Your task to perform on an android device: Open Youtube and go to the subscriptions tab Image 0: 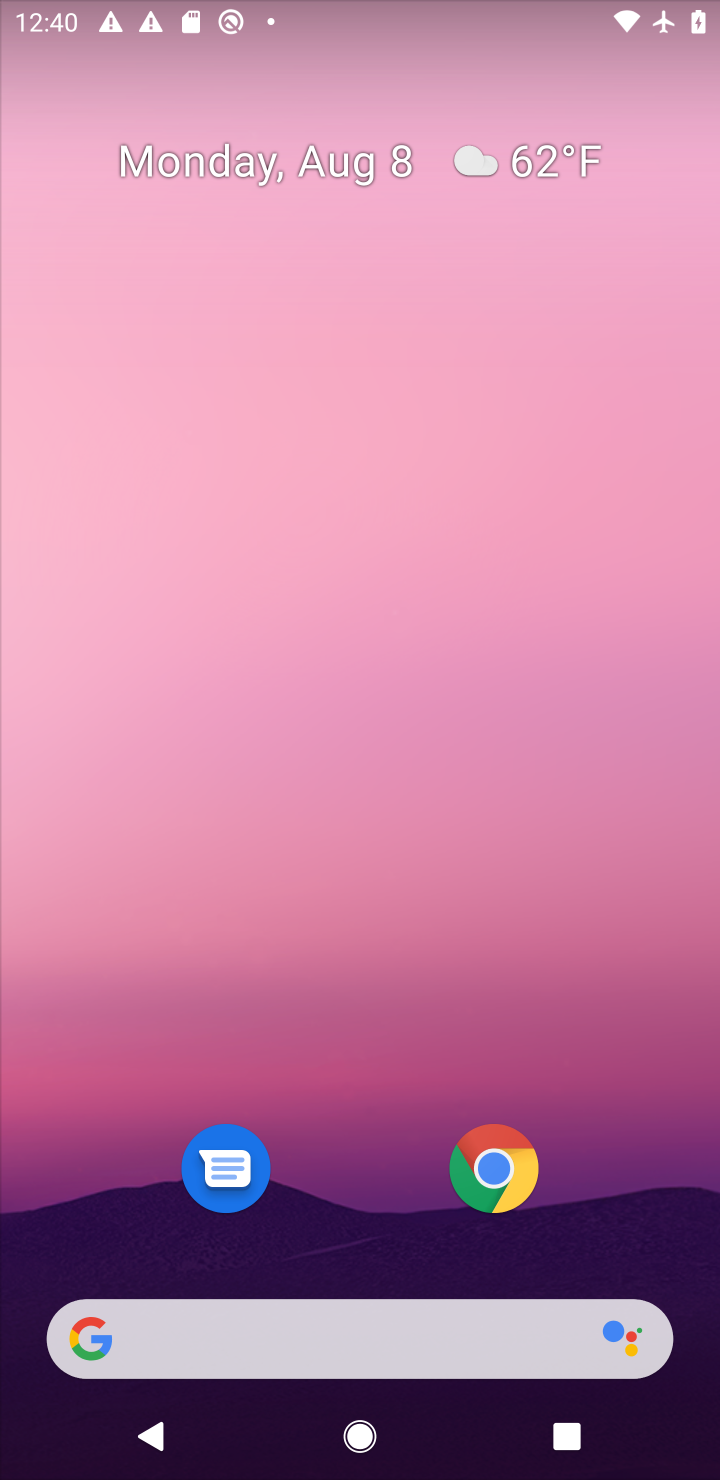
Step 0: drag from (408, 1263) to (468, 525)
Your task to perform on an android device: Open Youtube and go to the subscriptions tab Image 1: 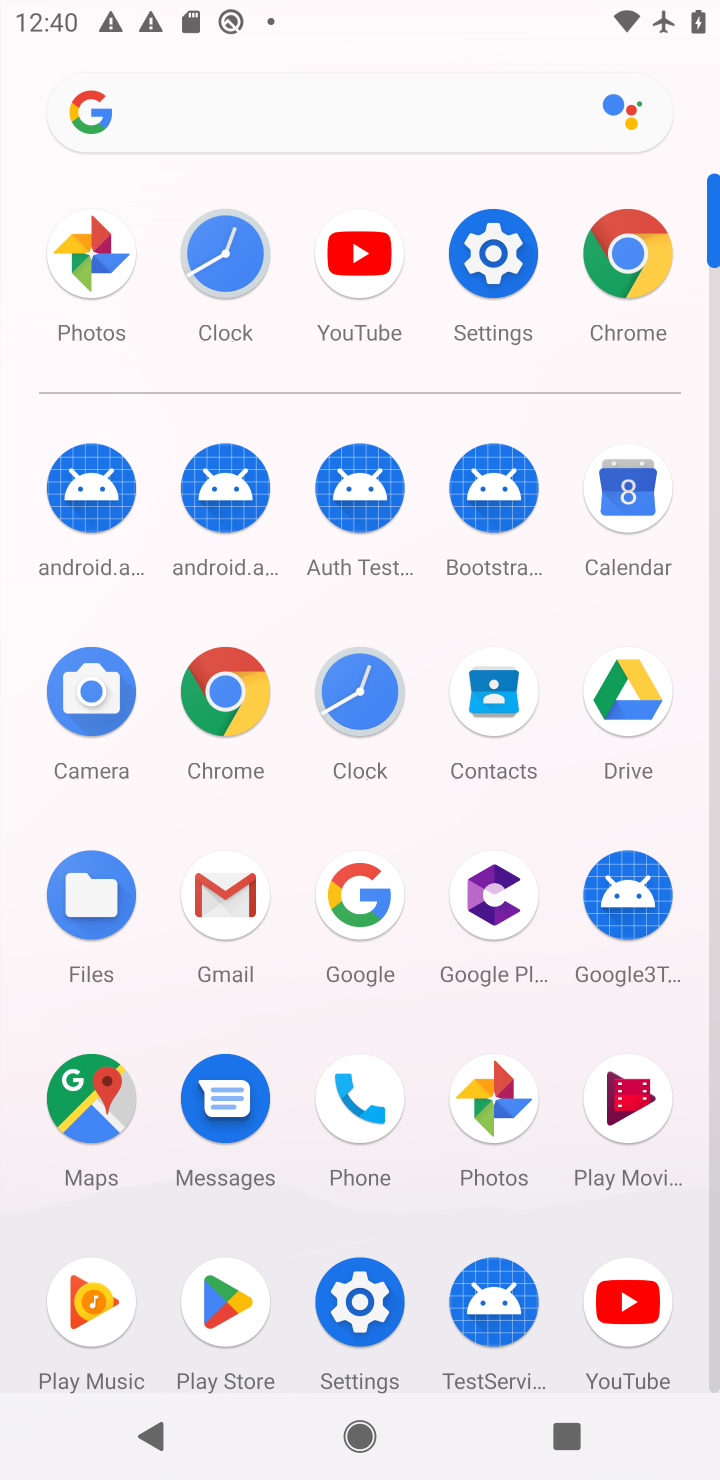
Step 1: click (365, 305)
Your task to perform on an android device: Open Youtube and go to the subscriptions tab Image 2: 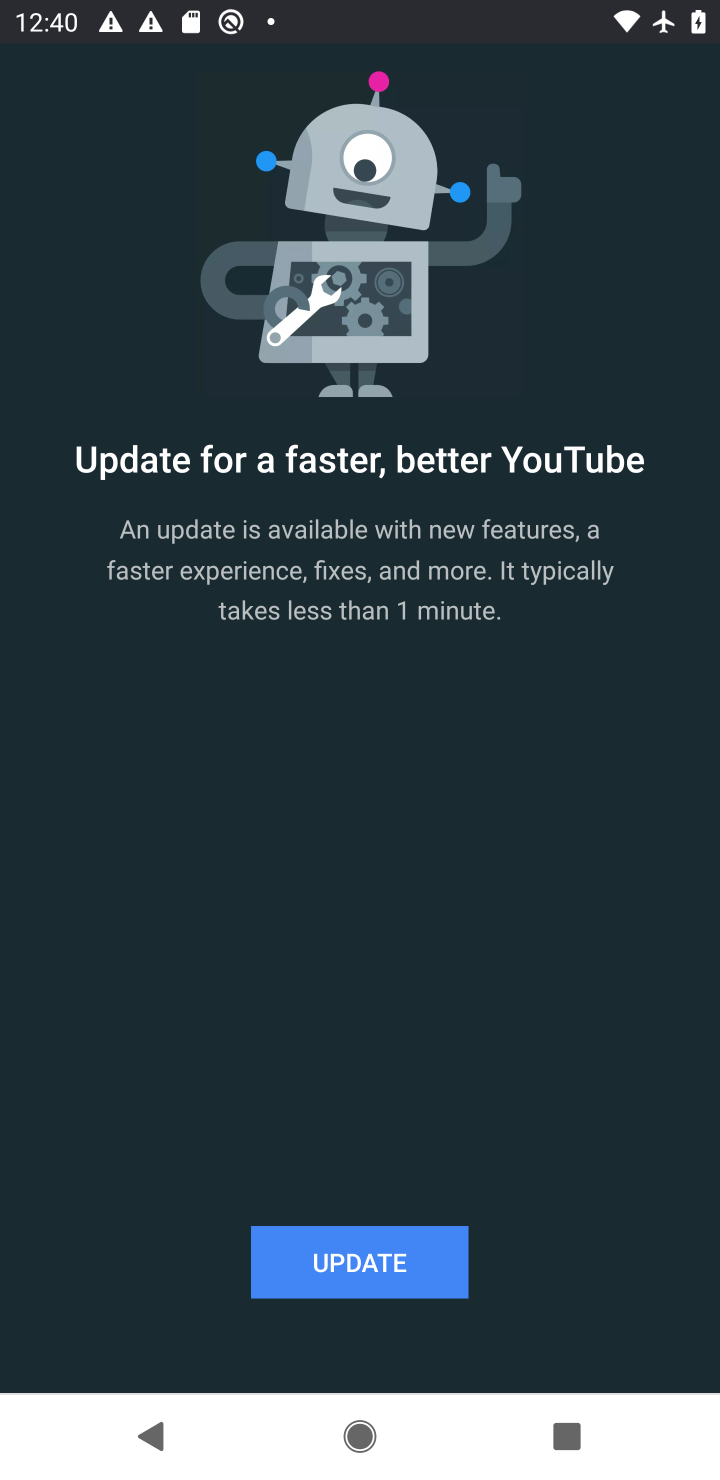
Step 2: click (323, 1238)
Your task to perform on an android device: Open Youtube and go to the subscriptions tab Image 3: 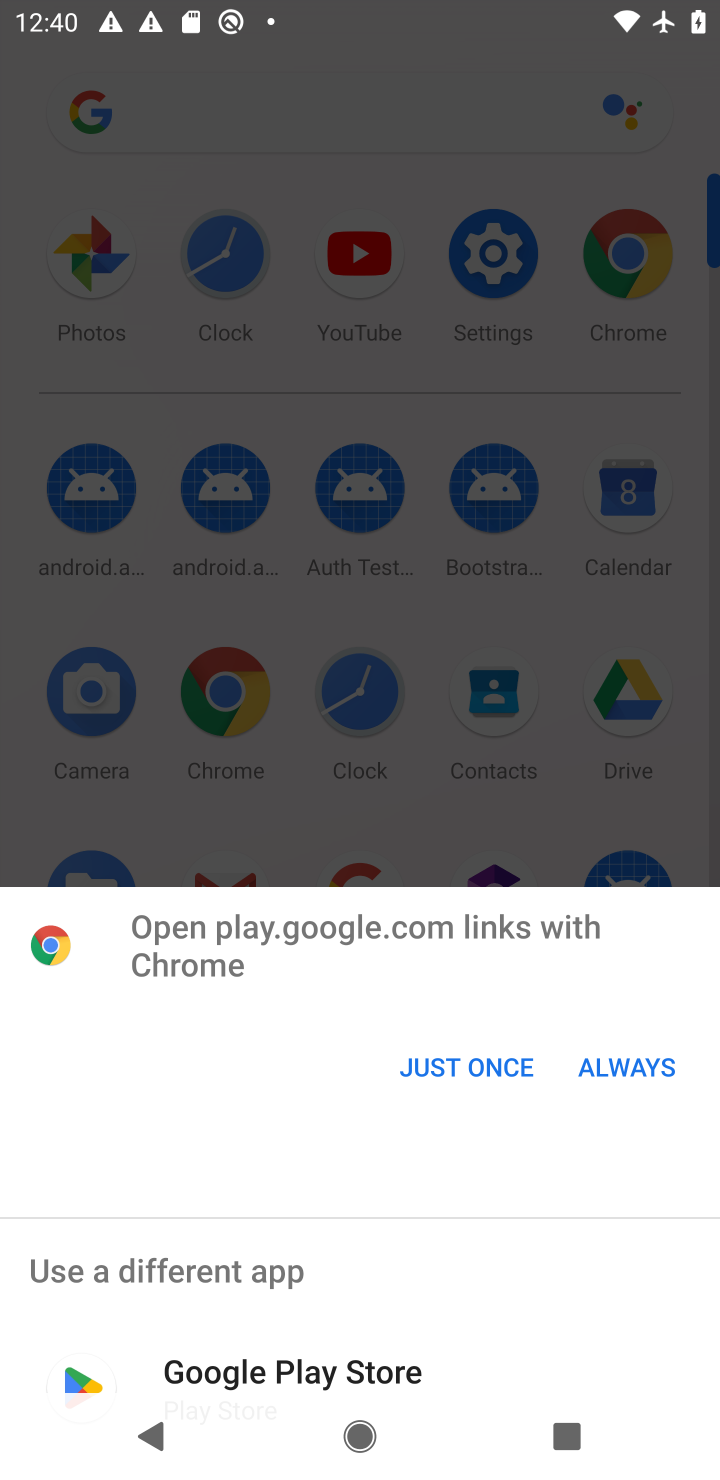
Step 3: click (320, 1349)
Your task to perform on an android device: Open Youtube and go to the subscriptions tab Image 4: 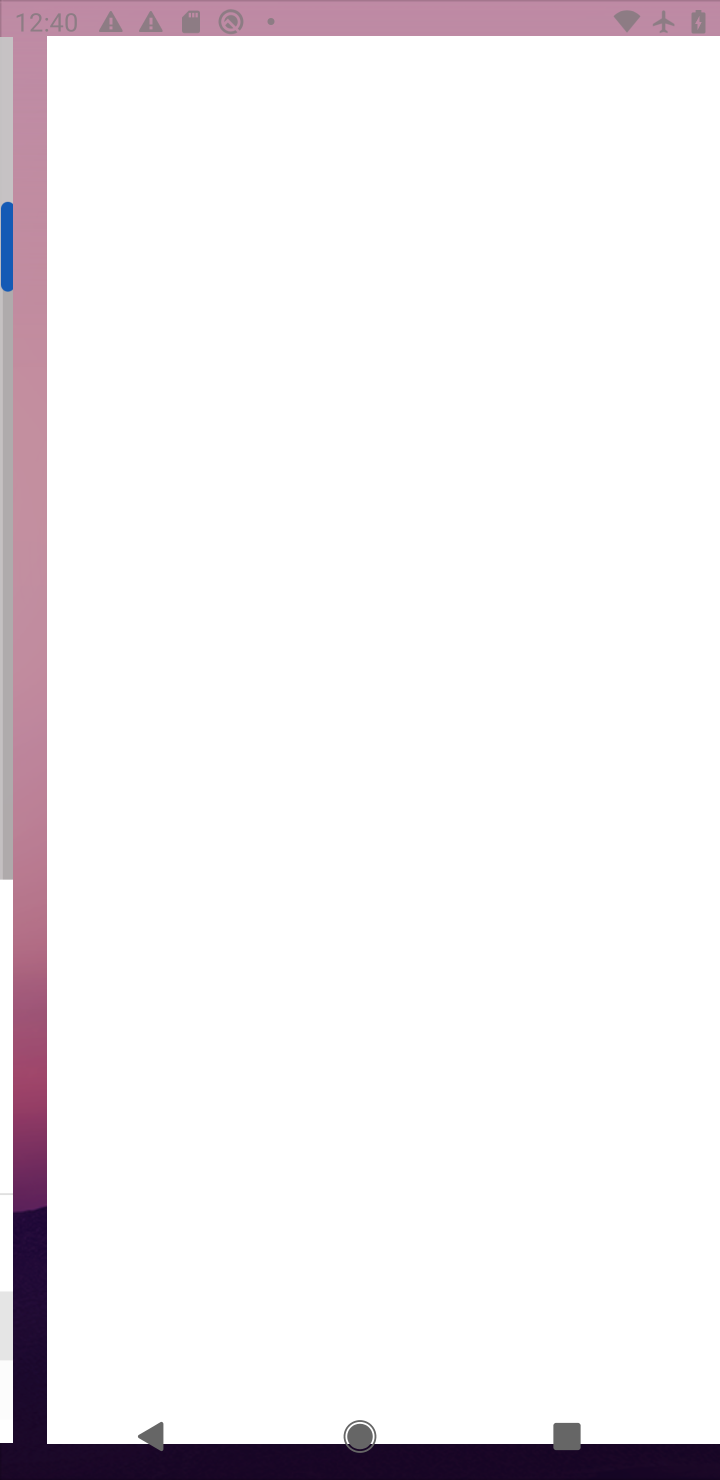
Step 4: click (435, 1060)
Your task to perform on an android device: Open Youtube and go to the subscriptions tab Image 5: 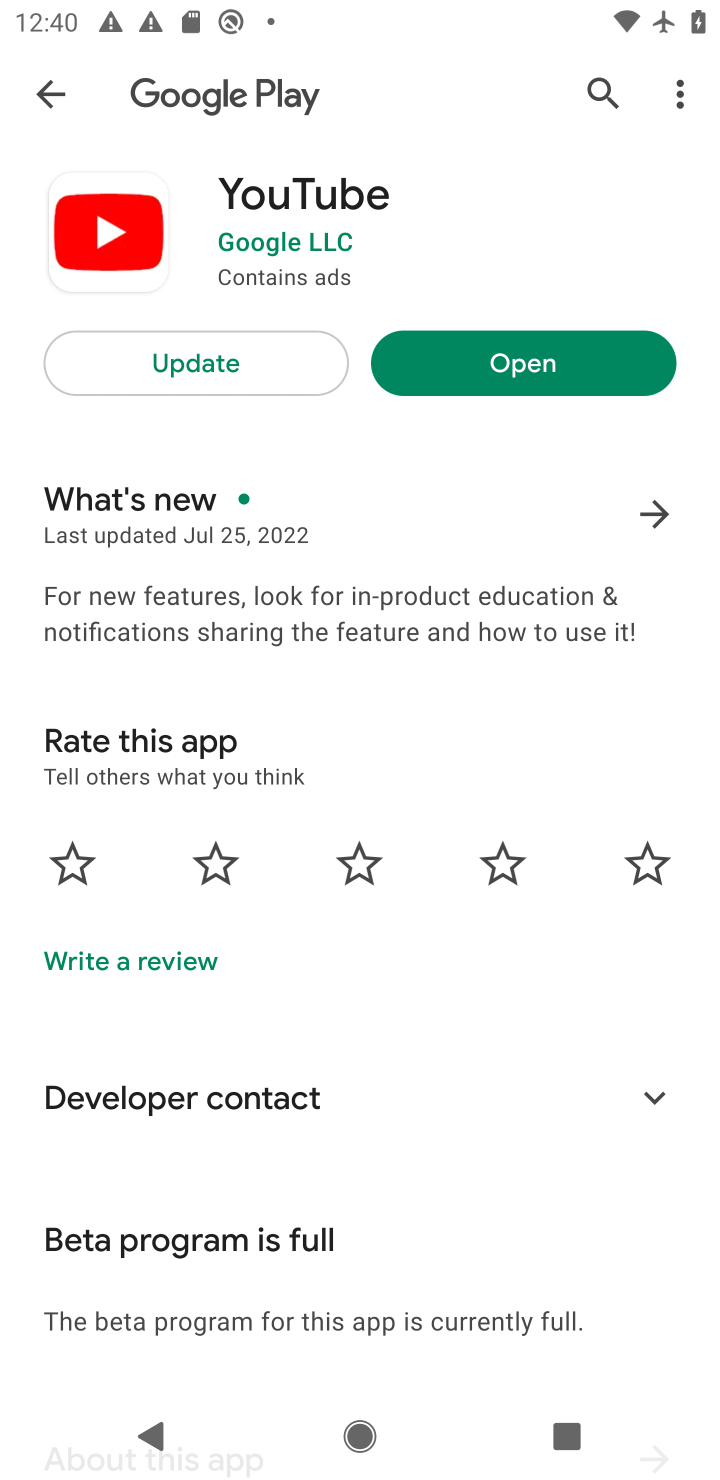
Step 5: click (216, 389)
Your task to perform on an android device: Open Youtube and go to the subscriptions tab Image 6: 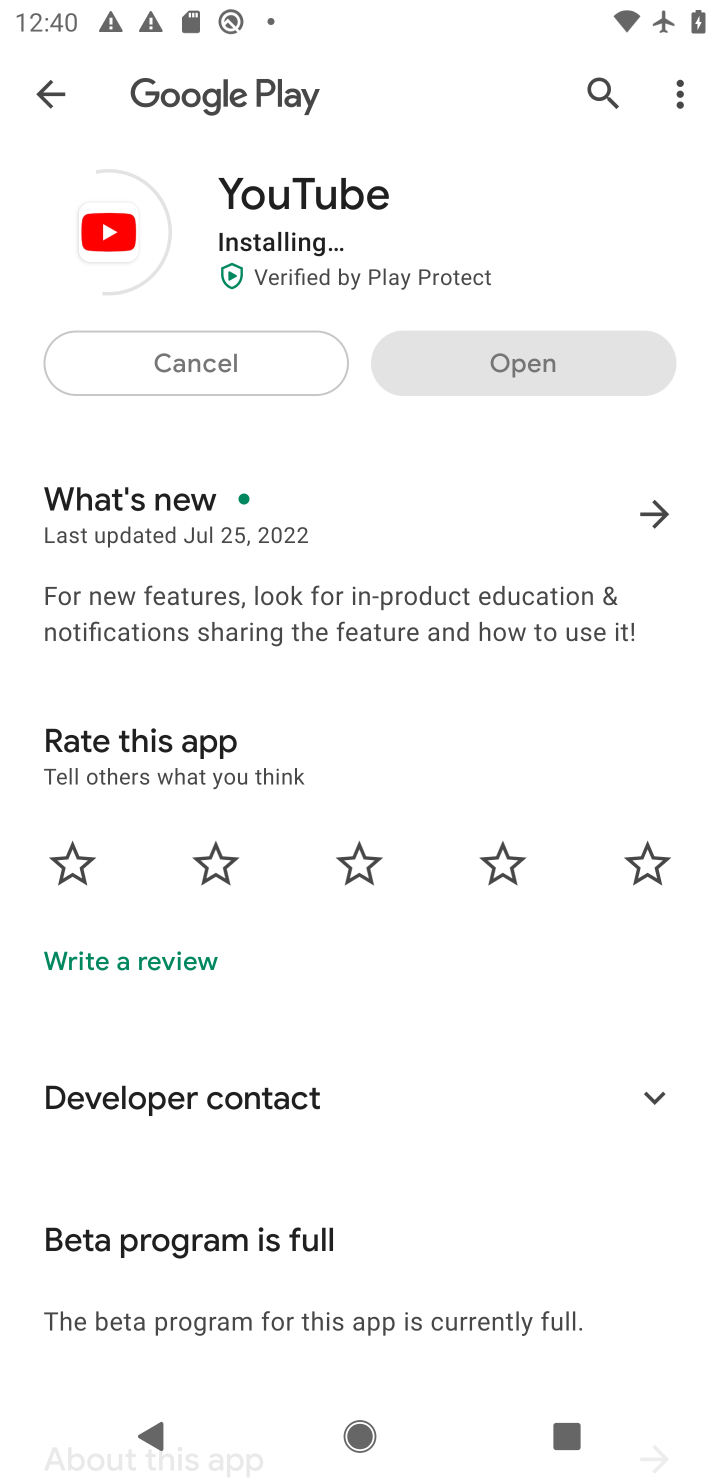
Step 6: task complete